Your task to perform on an android device: make emails show in primary in the gmail app Image 0: 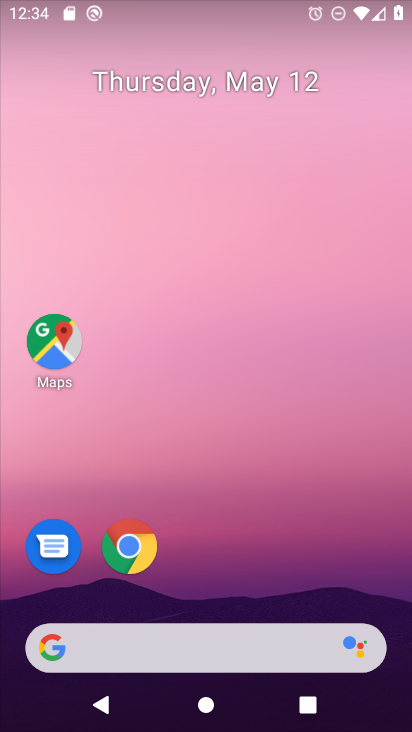
Step 0: drag from (387, 609) to (283, 73)
Your task to perform on an android device: make emails show in primary in the gmail app Image 1: 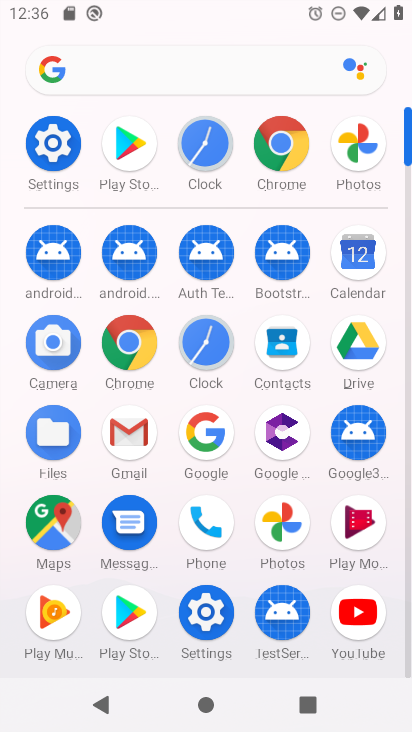
Step 1: click (162, 429)
Your task to perform on an android device: make emails show in primary in the gmail app Image 2: 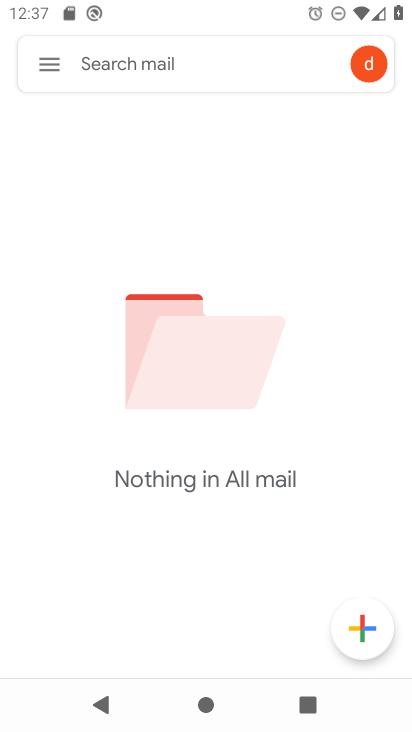
Step 2: task complete